Your task to perform on an android device: Go to accessibility settings Image 0: 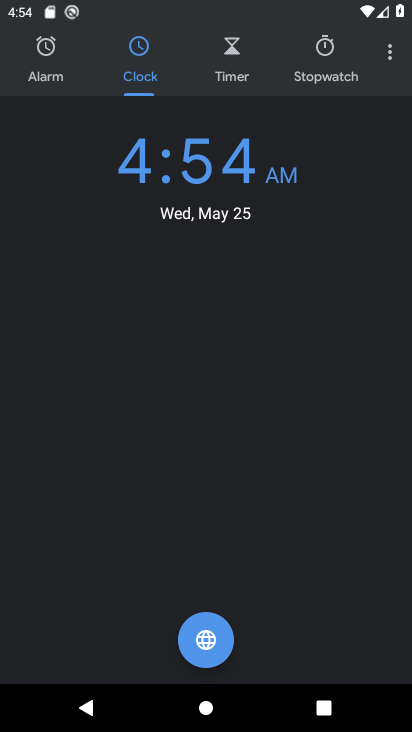
Step 0: press back button
Your task to perform on an android device: Go to accessibility settings Image 1: 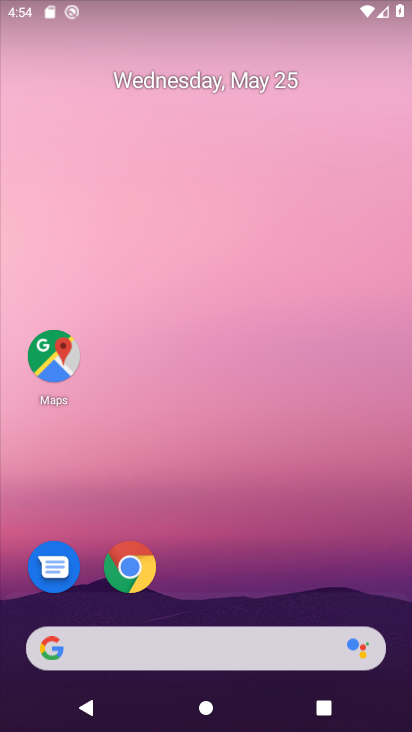
Step 1: drag from (238, 548) to (200, 16)
Your task to perform on an android device: Go to accessibility settings Image 2: 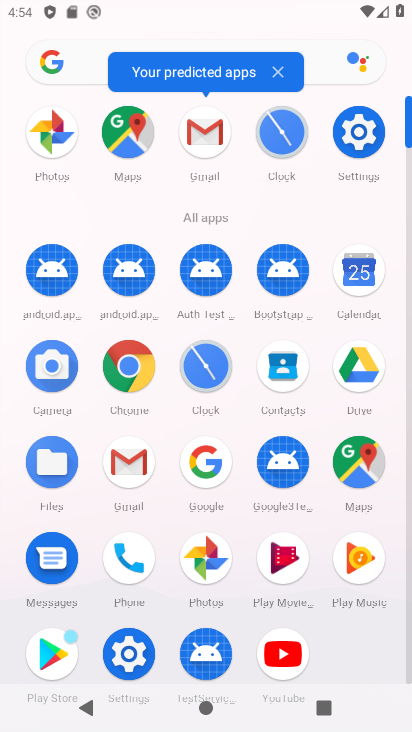
Step 2: click (359, 129)
Your task to perform on an android device: Go to accessibility settings Image 3: 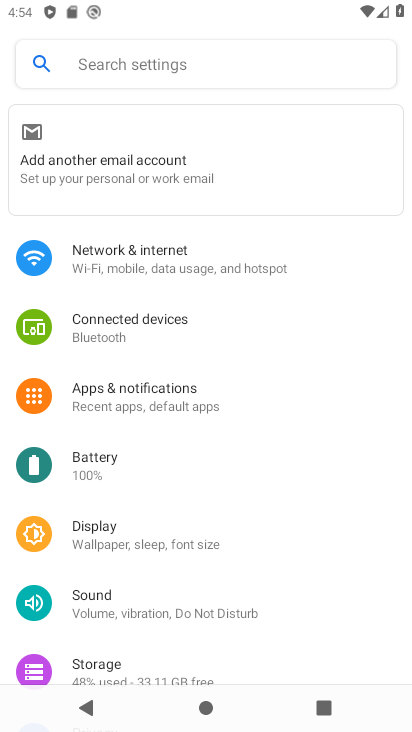
Step 3: drag from (215, 548) to (244, 251)
Your task to perform on an android device: Go to accessibility settings Image 4: 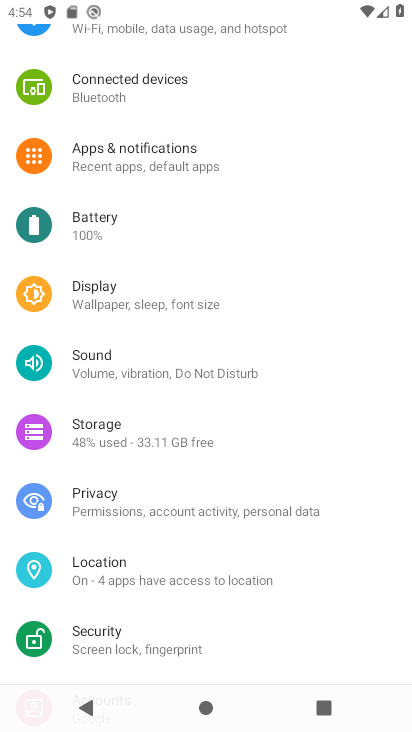
Step 4: drag from (236, 269) to (251, 532)
Your task to perform on an android device: Go to accessibility settings Image 5: 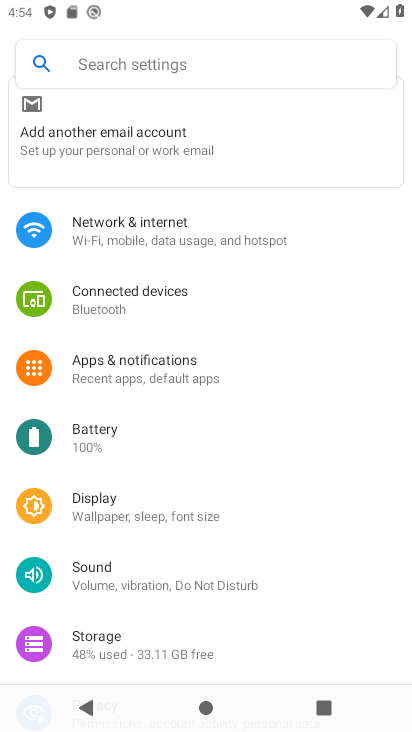
Step 5: drag from (231, 483) to (250, 201)
Your task to perform on an android device: Go to accessibility settings Image 6: 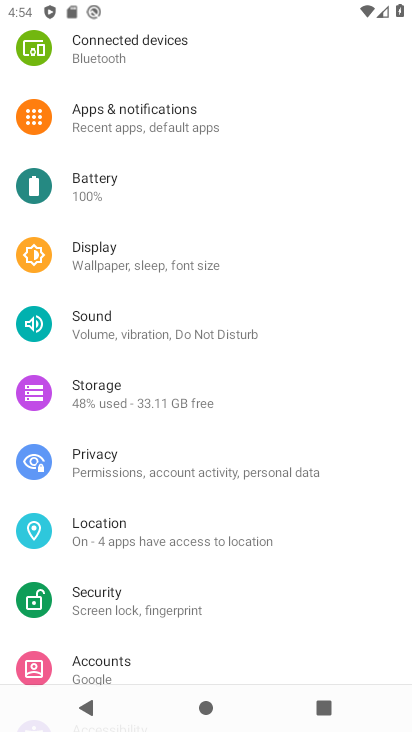
Step 6: drag from (249, 555) to (236, 207)
Your task to perform on an android device: Go to accessibility settings Image 7: 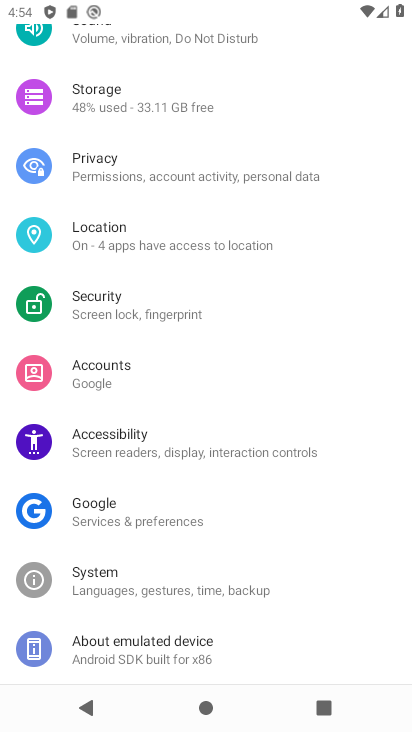
Step 7: click (141, 426)
Your task to perform on an android device: Go to accessibility settings Image 8: 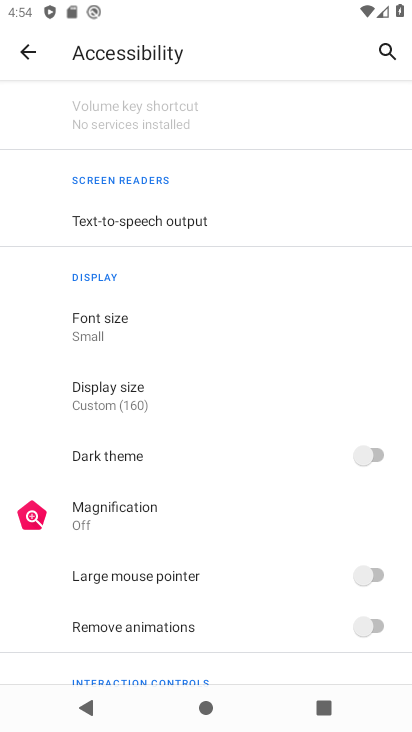
Step 8: task complete